Your task to perform on an android device: check the backup settings in the google photos Image 0: 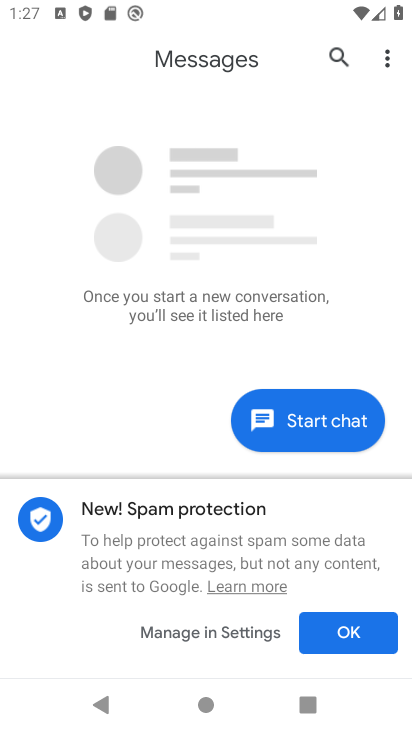
Step 0: click (348, 632)
Your task to perform on an android device: check the backup settings in the google photos Image 1: 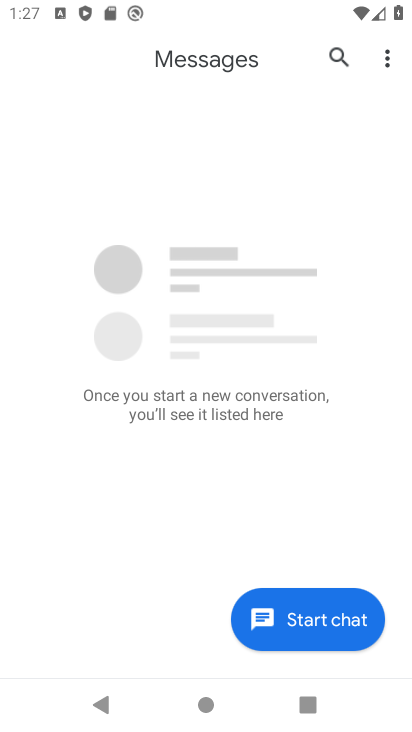
Step 1: press home button
Your task to perform on an android device: check the backup settings in the google photos Image 2: 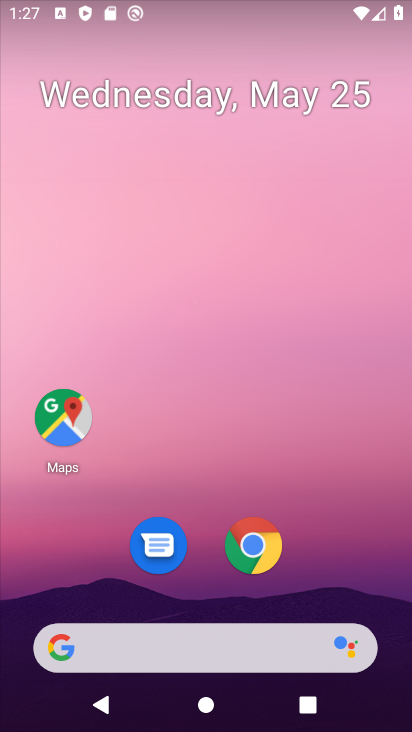
Step 2: drag from (375, 608) to (226, 160)
Your task to perform on an android device: check the backup settings in the google photos Image 3: 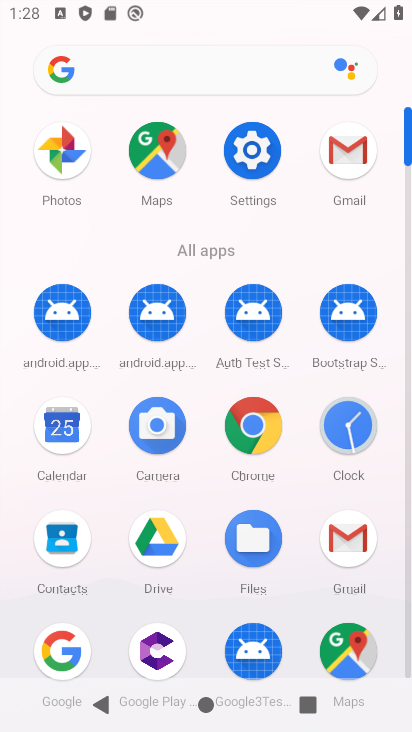
Step 3: click (81, 193)
Your task to perform on an android device: check the backup settings in the google photos Image 4: 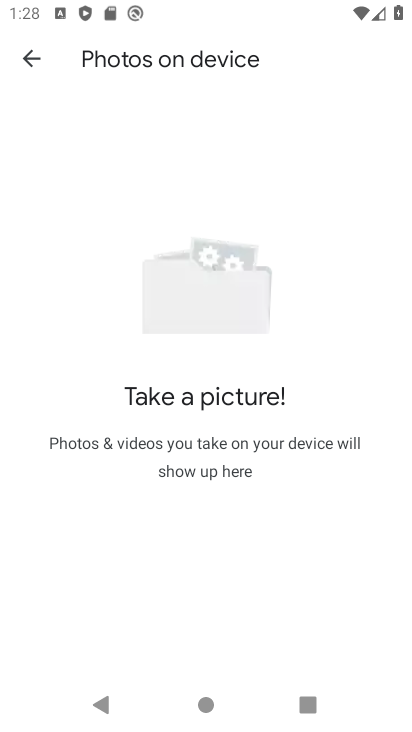
Step 4: task complete